Your task to perform on an android device: turn on priority inbox in the gmail app Image 0: 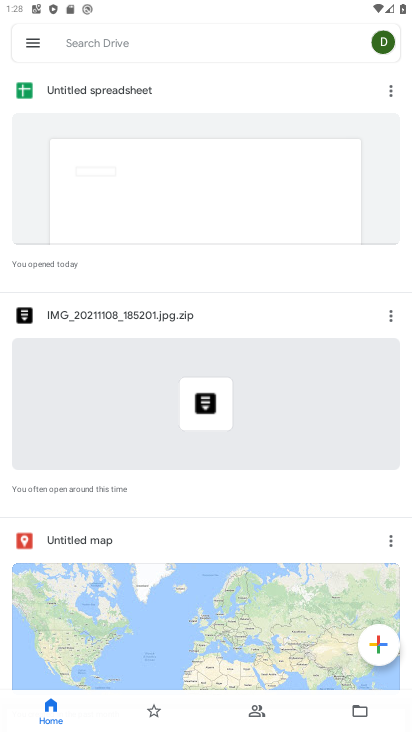
Step 0: press back button
Your task to perform on an android device: turn on priority inbox in the gmail app Image 1: 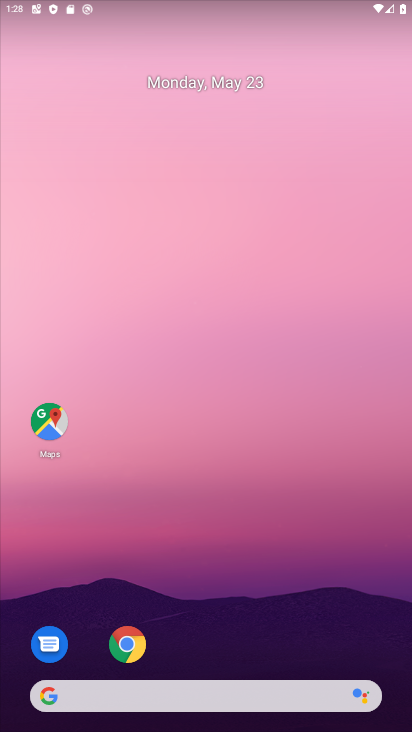
Step 1: drag from (275, 587) to (233, 23)
Your task to perform on an android device: turn on priority inbox in the gmail app Image 2: 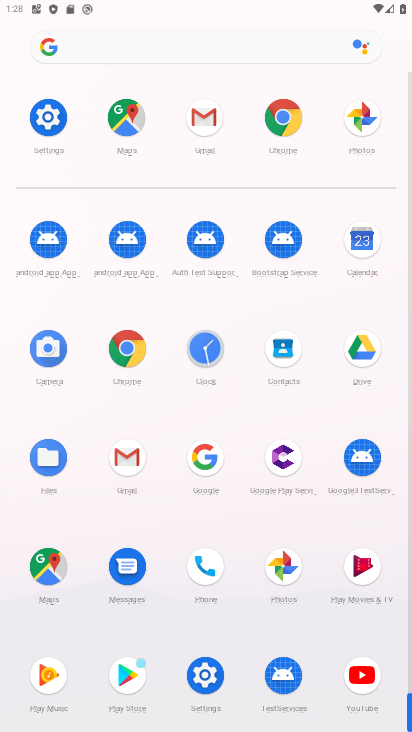
Step 2: drag from (2, 558) to (9, 186)
Your task to perform on an android device: turn on priority inbox in the gmail app Image 3: 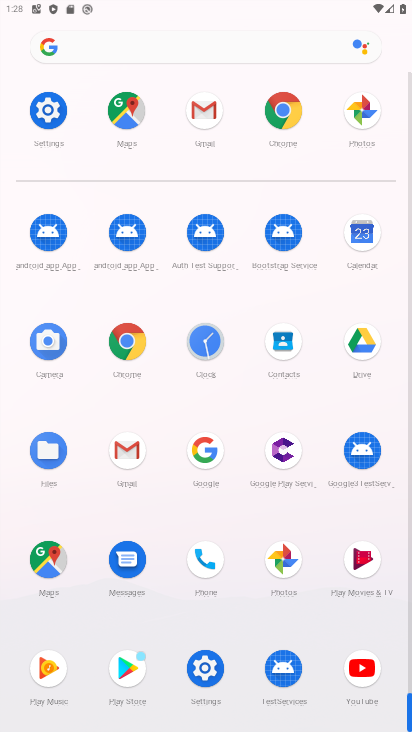
Step 3: click (127, 443)
Your task to perform on an android device: turn on priority inbox in the gmail app Image 4: 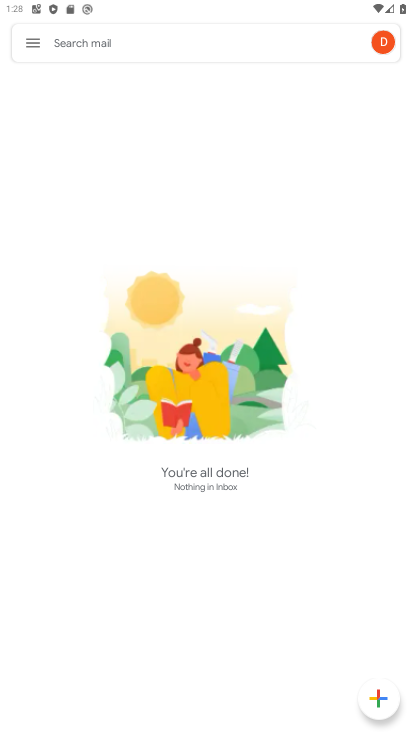
Step 4: click (26, 31)
Your task to perform on an android device: turn on priority inbox in the gmail app Image 5: 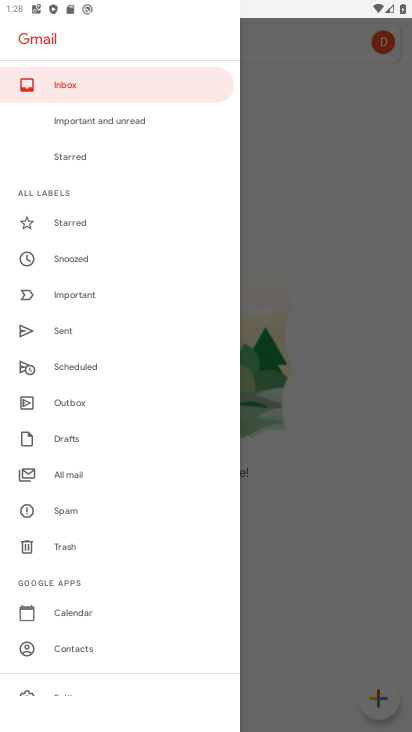
Step 5: drag from (97, 596) to (113, 157)
Your task to perform on an android device: turn on priority inbox in the gmail app Image 6: 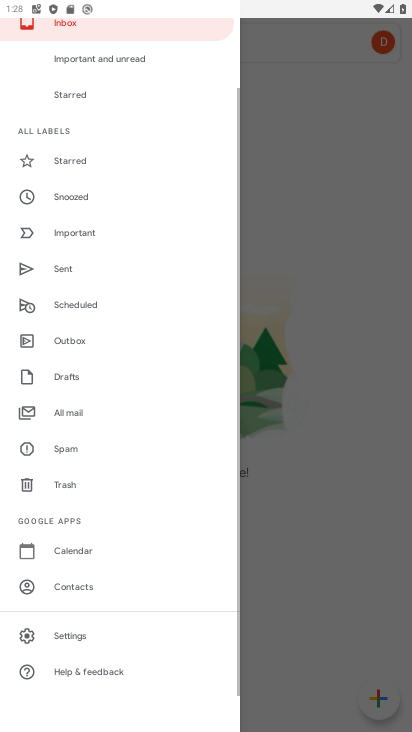
Step 6: click (72, 633)
Your task to perform on an android device: turn on priority inbox in the gmail app Image 7: 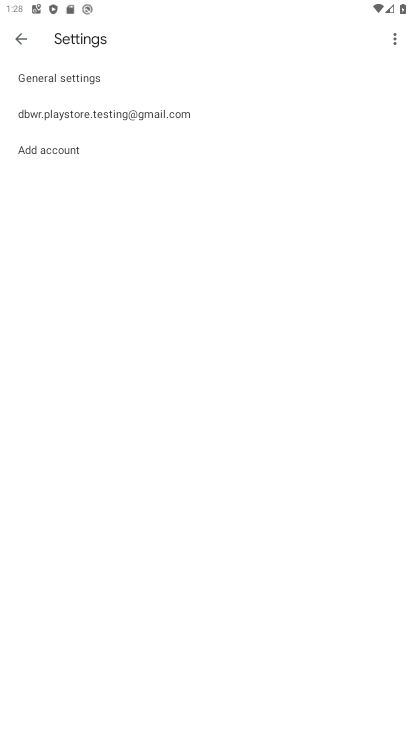
Step 7: click (147, 106)
Your task to perform on an android device: turn on priority inbox in the gmail app Image 8: 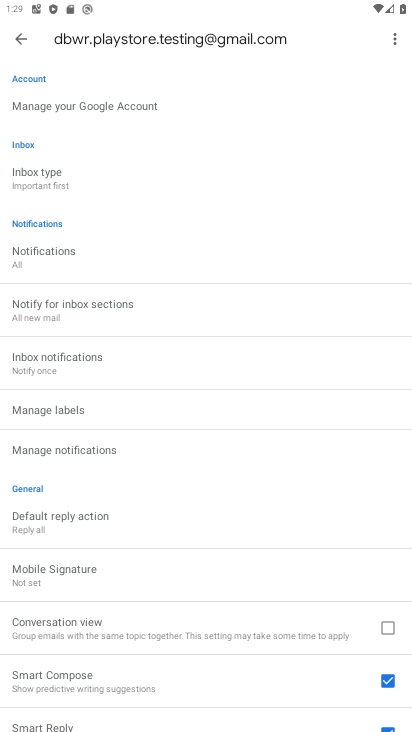
Step 8: click (85, 180)
Your task to perform on an android device: turn on priority inbox in the gmail app Image 9: 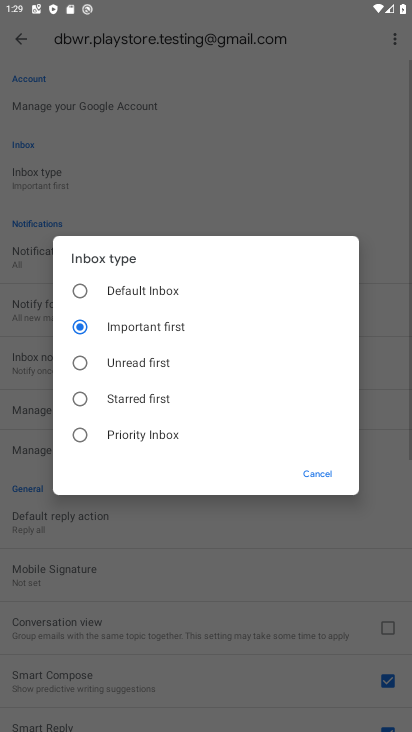
Step 9: click (135, 439)
Your task to perform on an android device: turn on priority inbox in the gmail app Image 10: 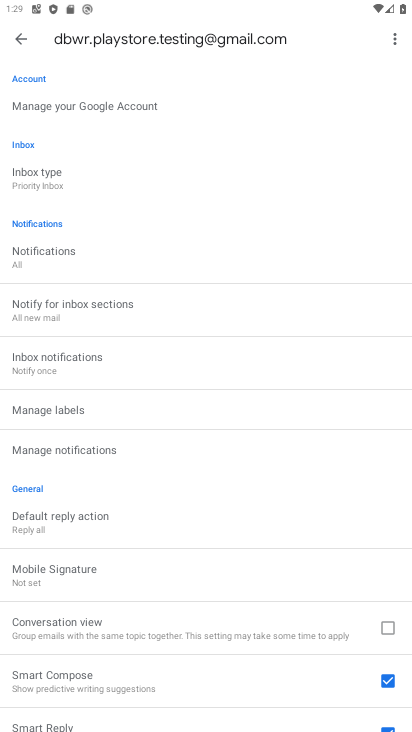
Step 10: task complete